Your task to perform on an android device: toggle sleep mode Image 0: 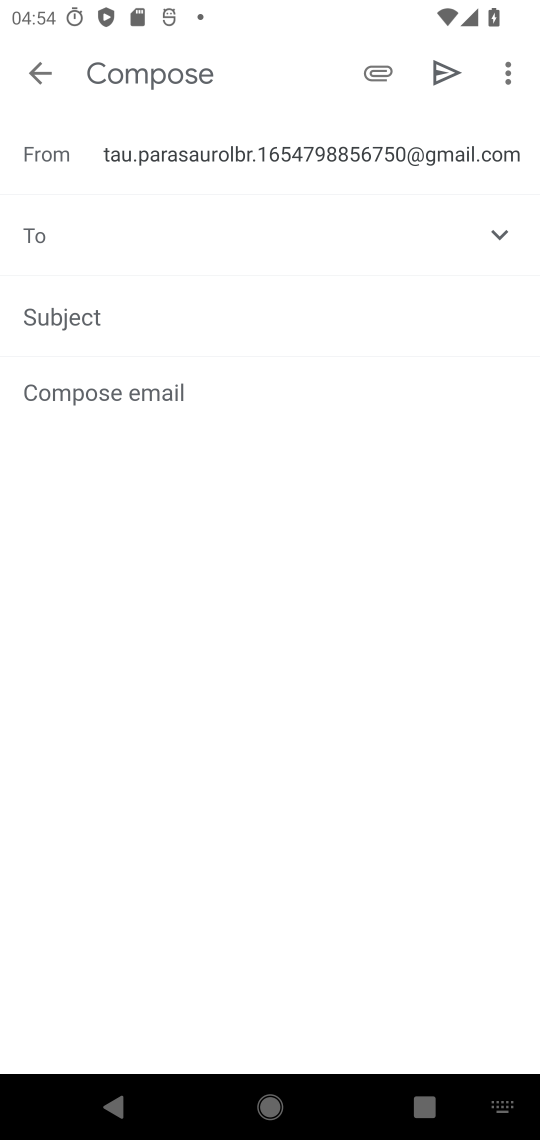
Step 0: press home button
Your task to perform on an android device: toggle sleep mode Image 1: 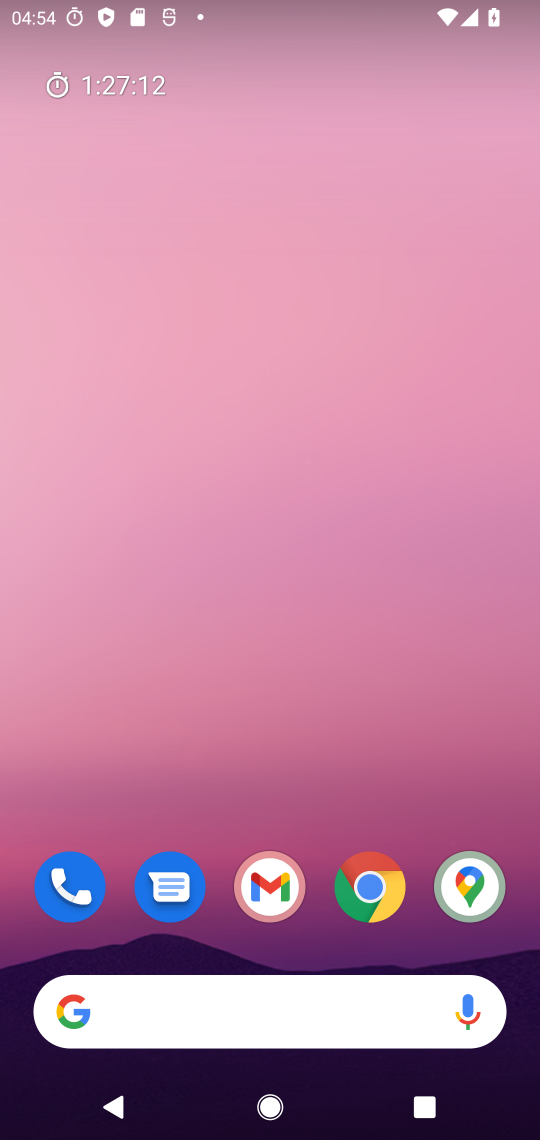
Step 1: drag from (310, 845) to (343, 361)
Your task to perform on an android device: toggle sleep mode Image 2: 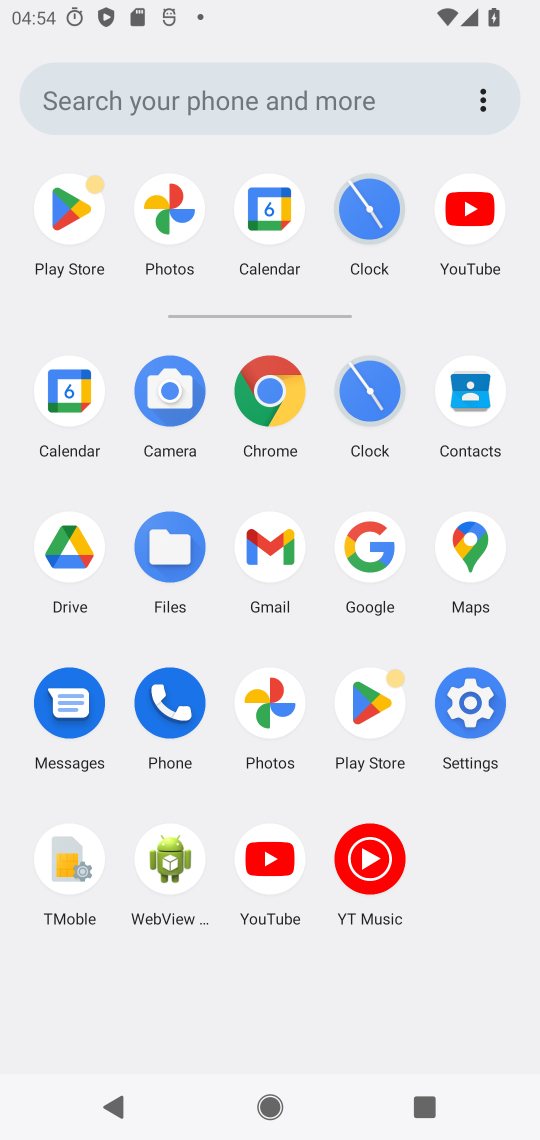
Step 2: click (472, 707)
Your task to perform on an android device: toggle sleep mode Image 3: 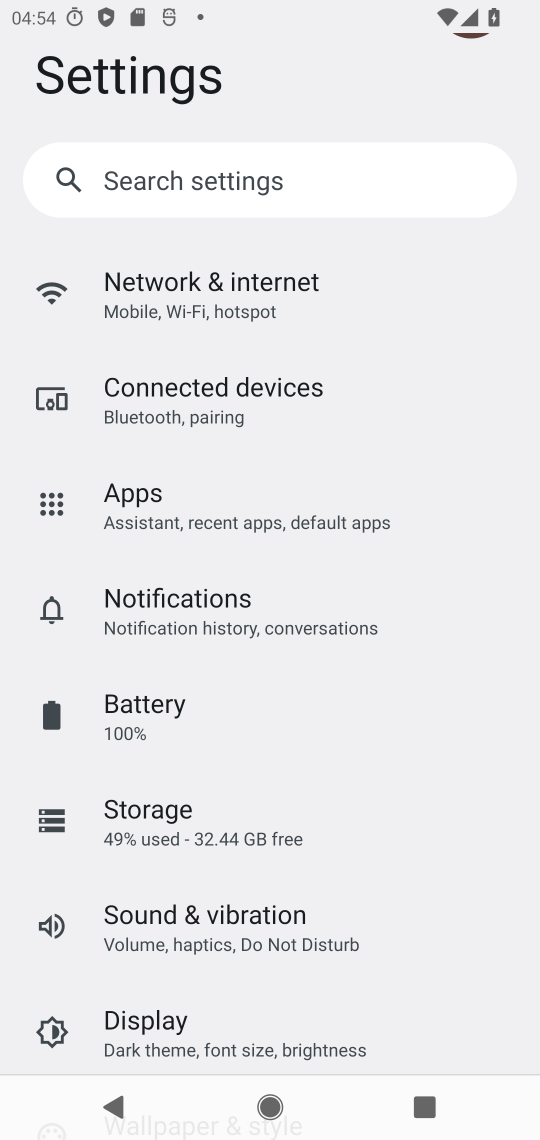
Step 3: drag from (439, 478) to (455, 682)
Your task to perform on an android device: toggle sleep mode Image 4: 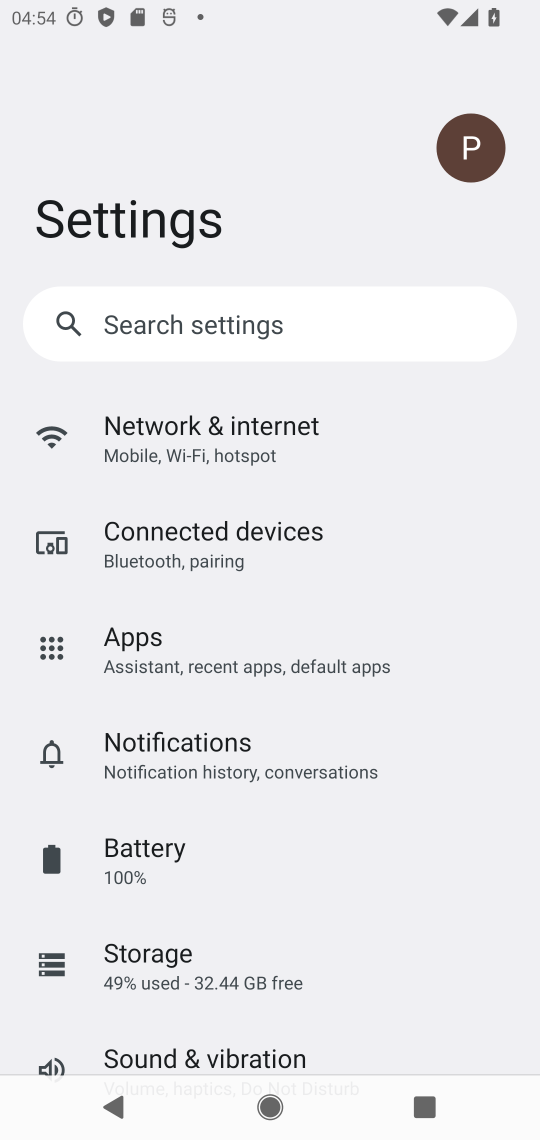
Step 4: drag from (478, 415) to (475, 650)
Your task to perform on an android device: toggle sleep mode Image 5: 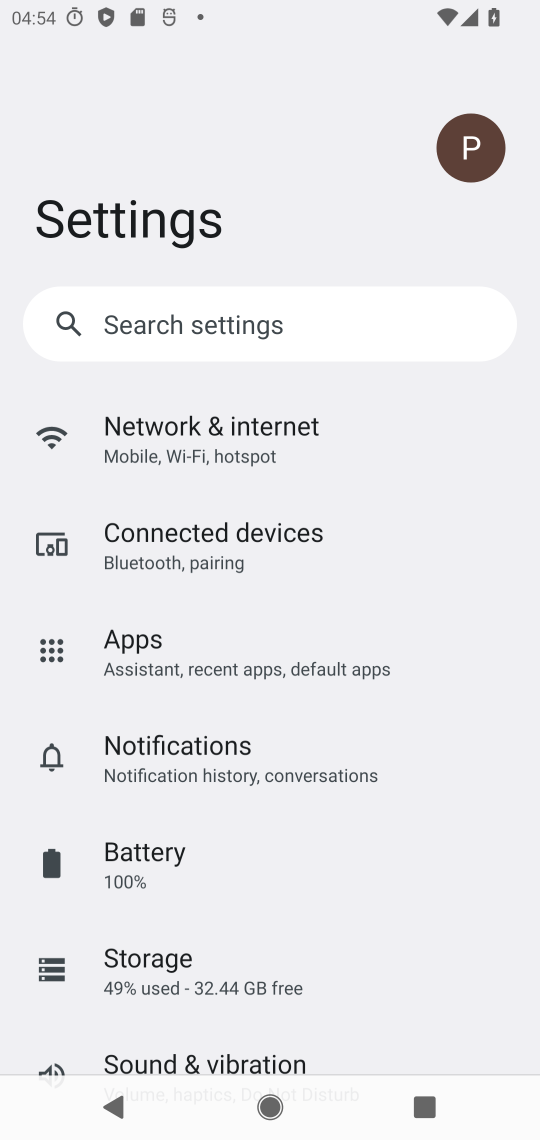
Step 5: drag from (465, 675) to (471, 562)
Your task to perform on an android device: toggle sleep mode Image 6: 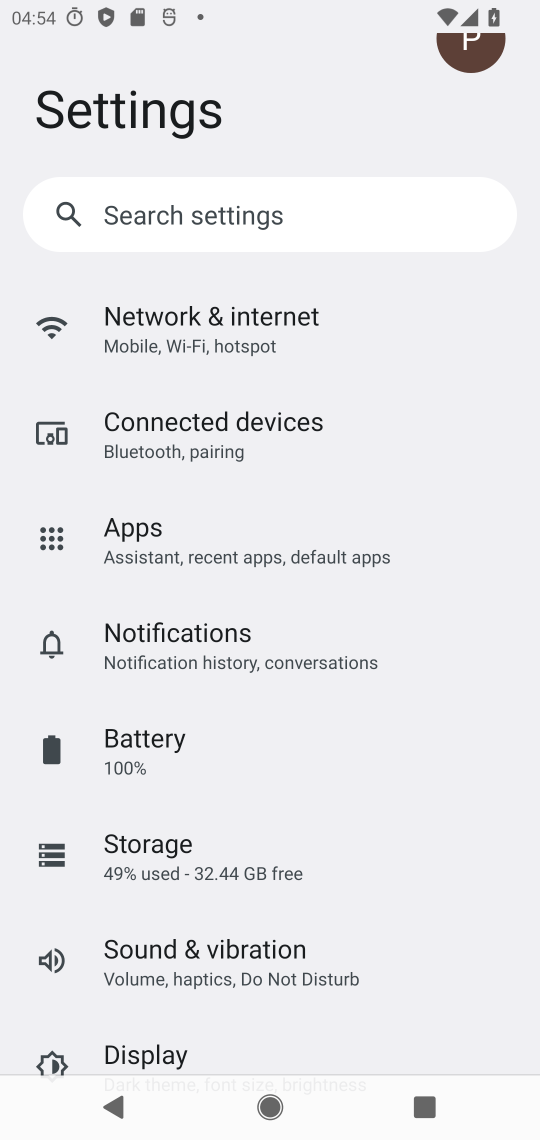
Step 6: drag from (480, 709) to (480, 539)
Your task to perform on an android device: toggle sleep mode Image 7: 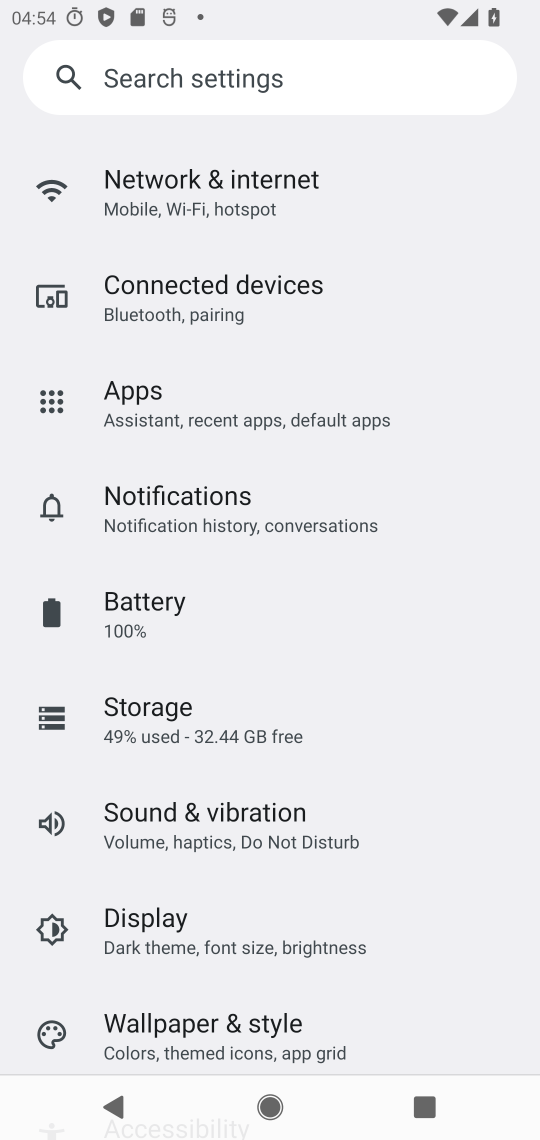
Step 7: drag from (453, 777) to (458, 619)
Your task to perform on an android device: toggle sleep mode Image 8: 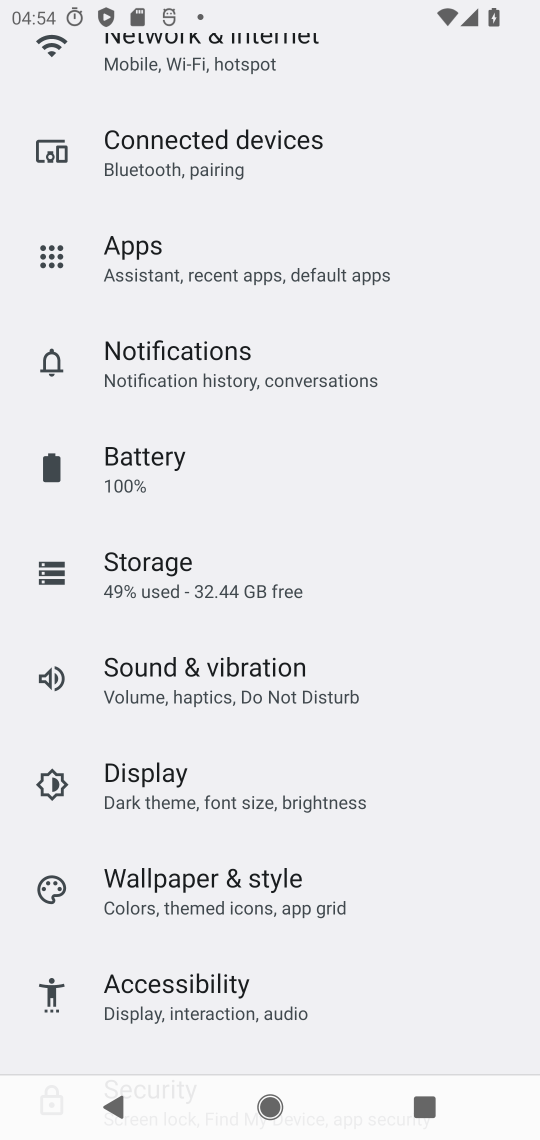
Step 8: drag from (443, 840) to (452, 741)
Your task to perform on an android device: toggle sleep mode Image 9: 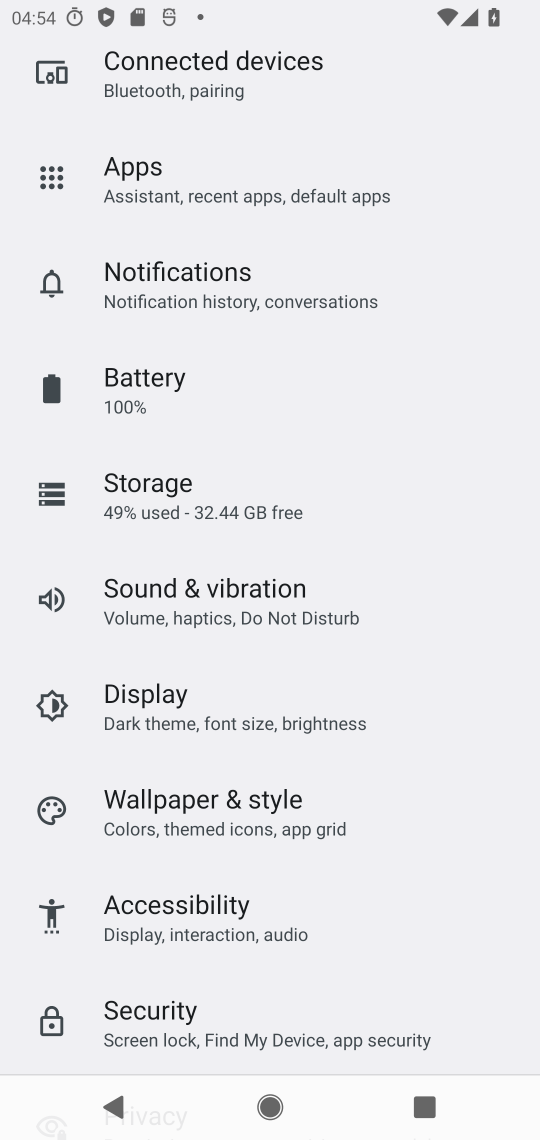
Step 9: drag from (469, 882) to (448, 622)
Your task to perform on an android device: toggle sleep mode Image 10: 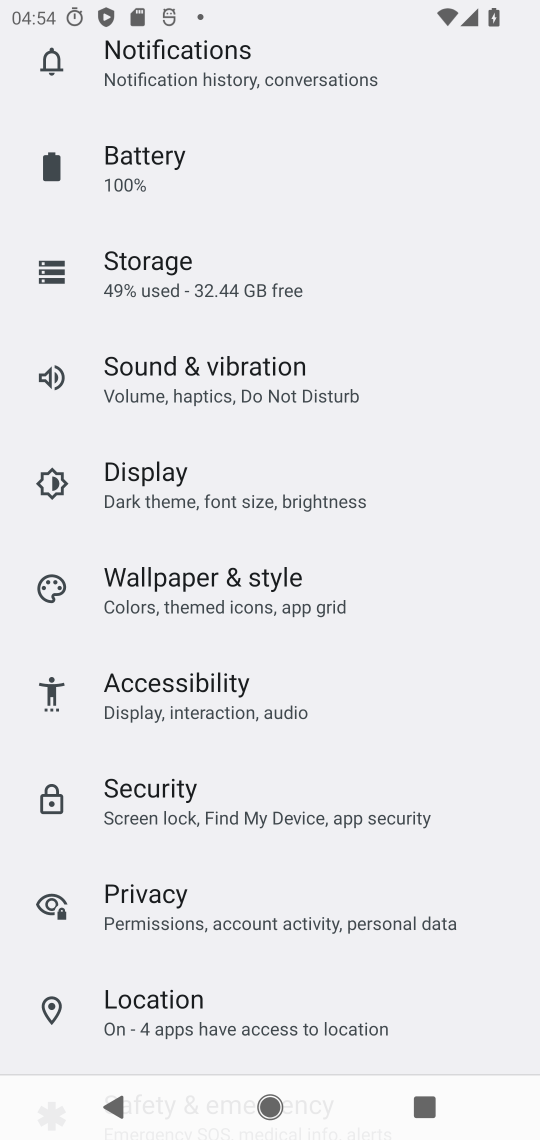
Step 10: drag from (445, 477) to (439, 665)
Your task to perform on an android device: toggle sleep mode Image 11: 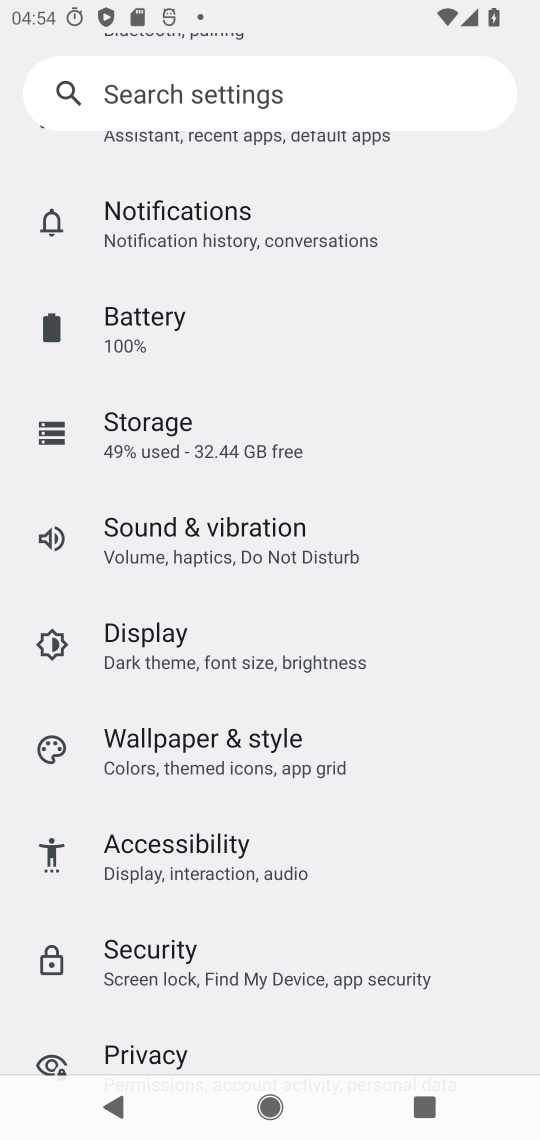
Step 11: drag from (419, 476) to (421, 721)
Your task to perform on an android device: toggle sleep mode Image 12: 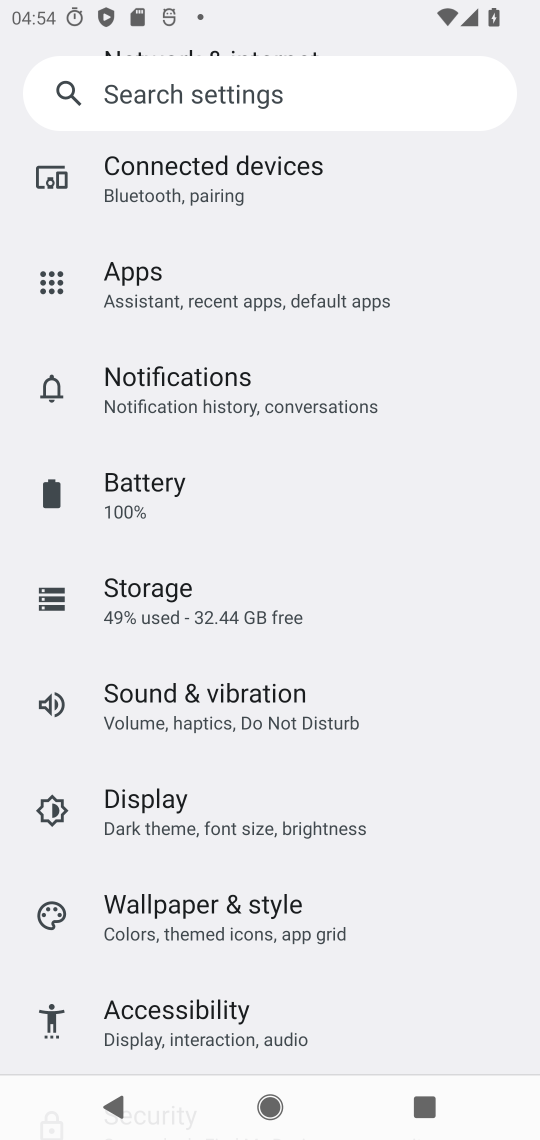
Step 12: drag from (428, 413) to (424, 603)
Your task to perform on an android device: toggle sleep mode Image 13: 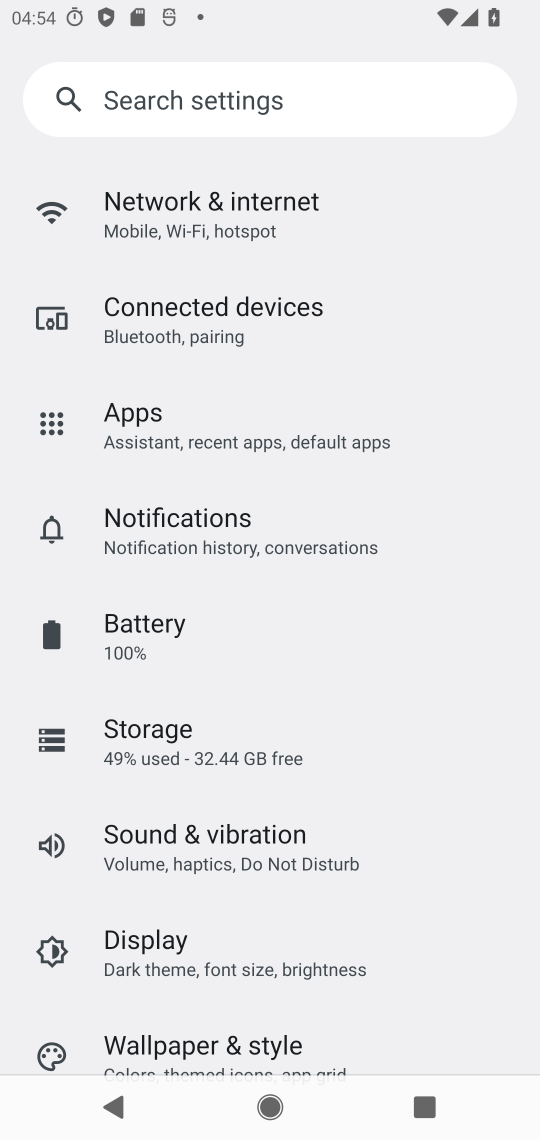
Step 13: click (310, 930)
Your task to perform on an android device: toggle sleep mode Image 14: 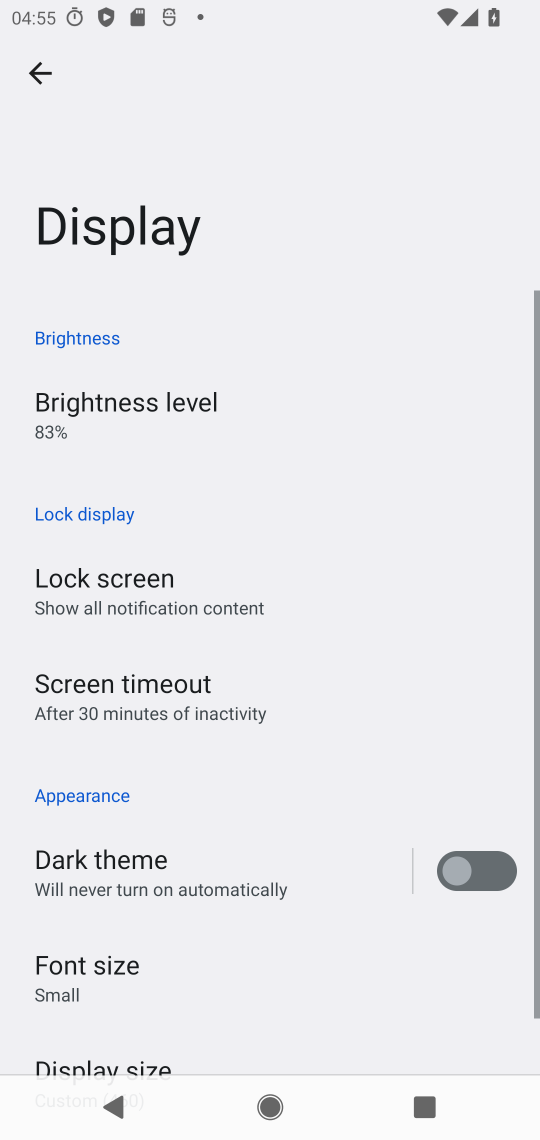
Step 14: task complete